Your task to perform on an android device: visit the assistant section in the google photos Image 0: 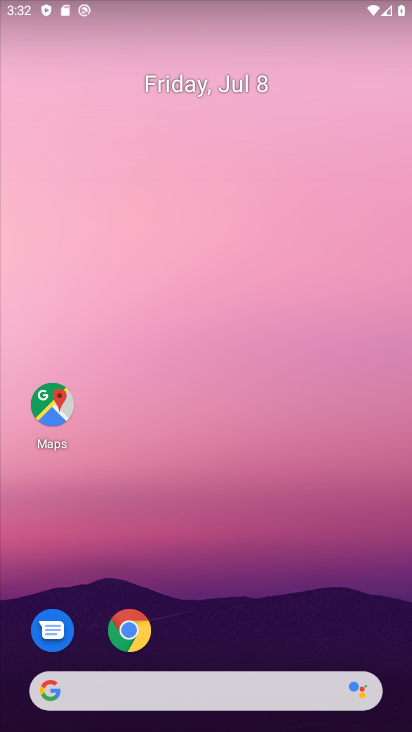
Step 0: drag from (230, 596) to (200, 138)
Your task to perform on an android device: visit the assistant section in the google photos Image 1: 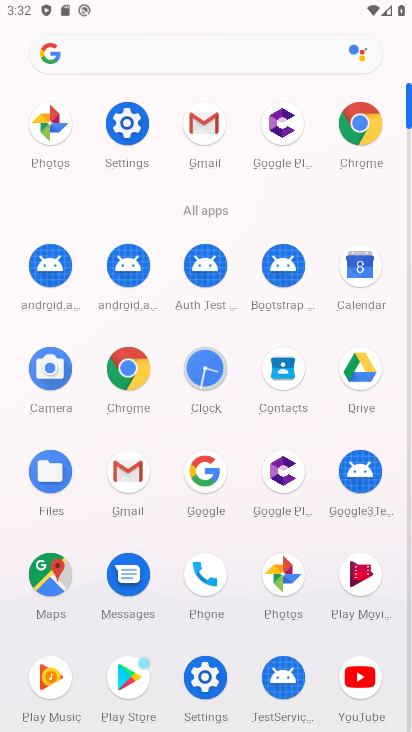
Step 1: click (32, 134)
Your task to perform on an android device: visit the assistant section in the google photos Image 2: 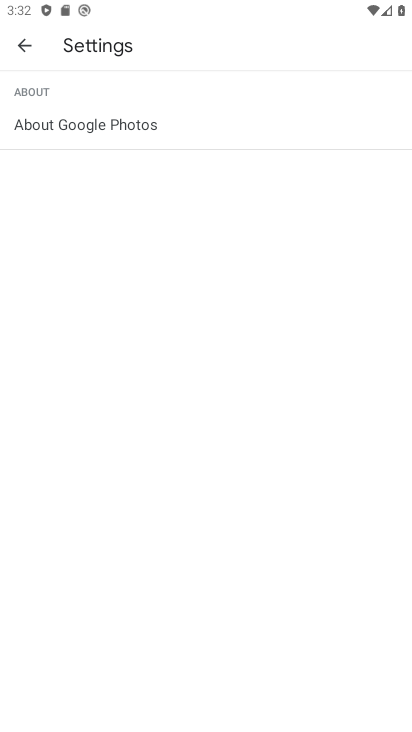
Step 2: click (23, 38)
Your task to perform on an android device: visit the assistant section in the google photos Image 3: 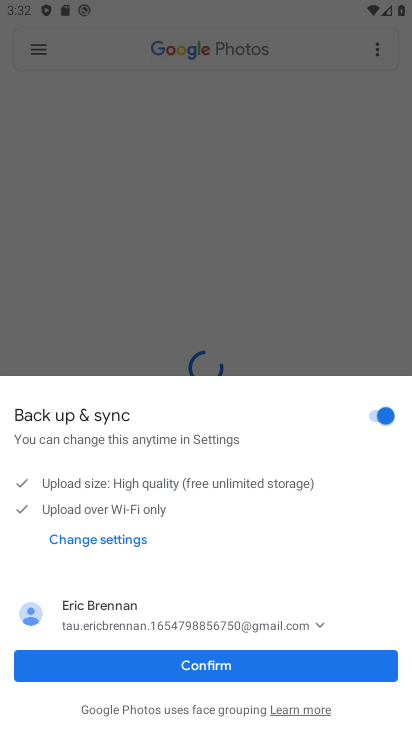
Step 3: click (299, 663)
Your task to perform on an android device: visit the assistant section in the google photos Image 4: 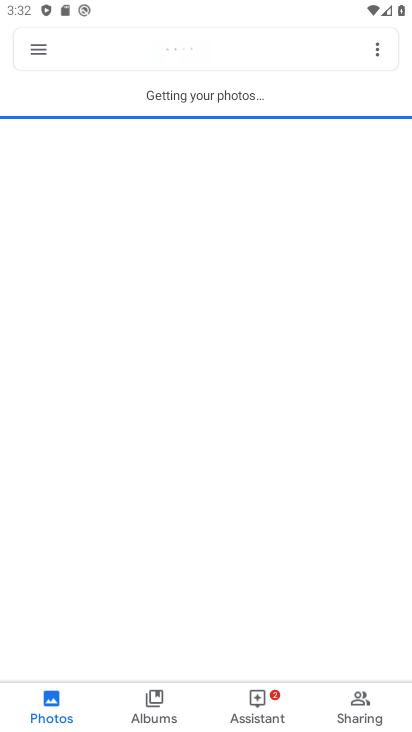
Step 4: click (261, 701)
Your task to perform on an android device: visit the assistant section in the google photos Image 5: 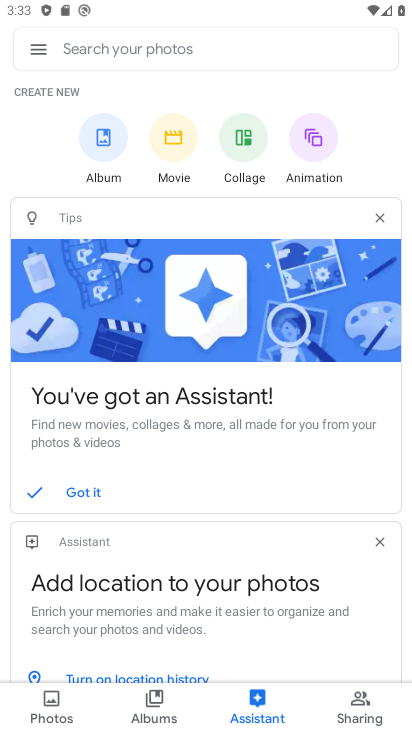
Step 5: task complete